Your task to perform on an android device: Is it going to rain this weekend? Image 0: 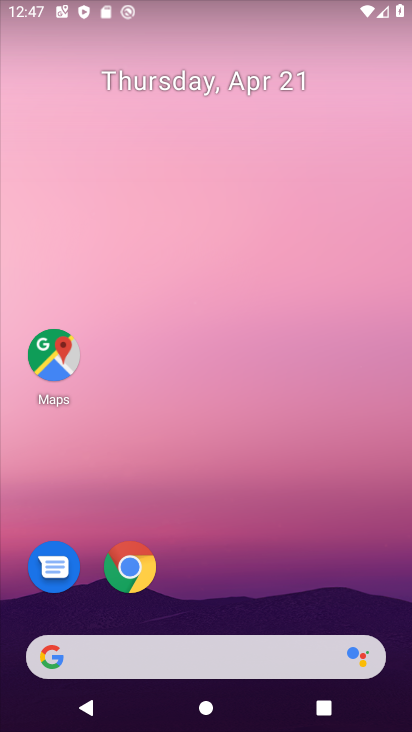
Step 0: click (140, 565)
Your task to perform on an android device: Is it going to rain this weekend? Image 1: 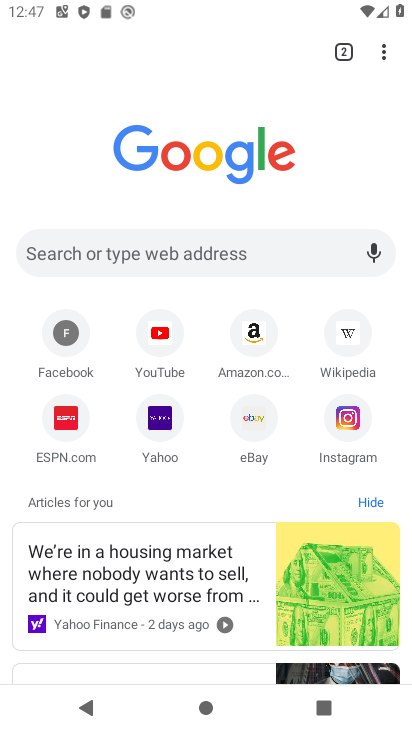
Step 1: click (171, 256)
Your task to perform on an android device: Is it going to rain this weekend? Image 2: 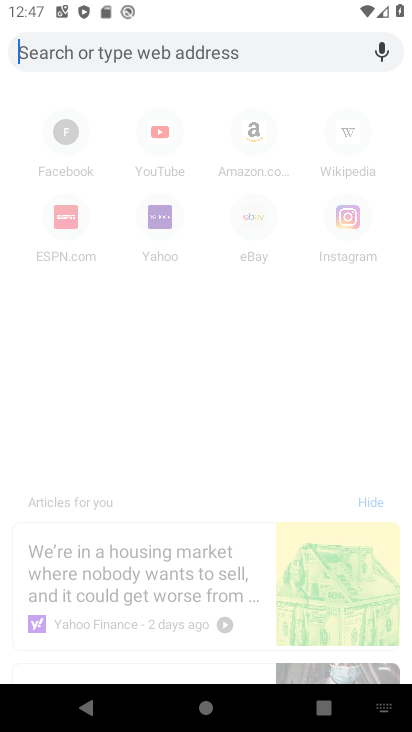
Step 2: type "Is it going to rain this weekend?"
Your task to perform on an android device: Is it going to rain this weekend? Image 3: 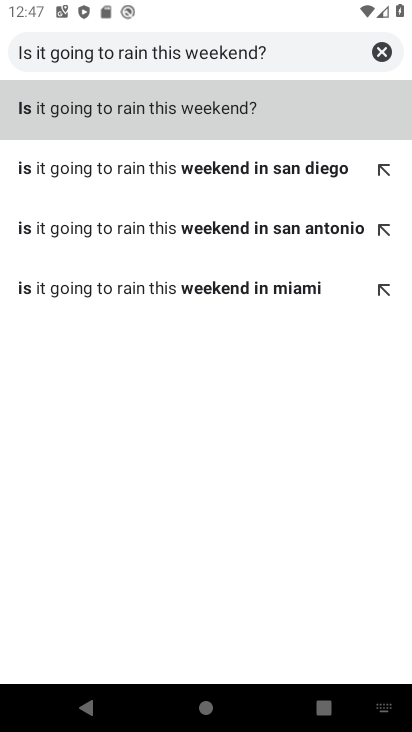
Step 3: click (117, 100)
Your task to perform on an android device: Is it going to rain this weekend? Image 4: 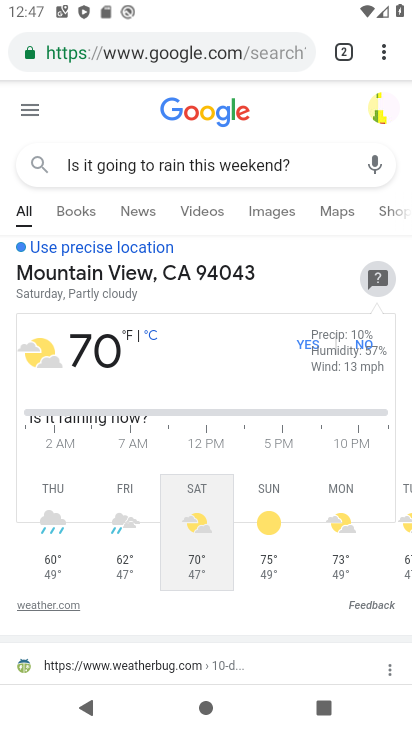
Step 4: task complete